Your task to perform on an android device: Show me recent news Image 0: 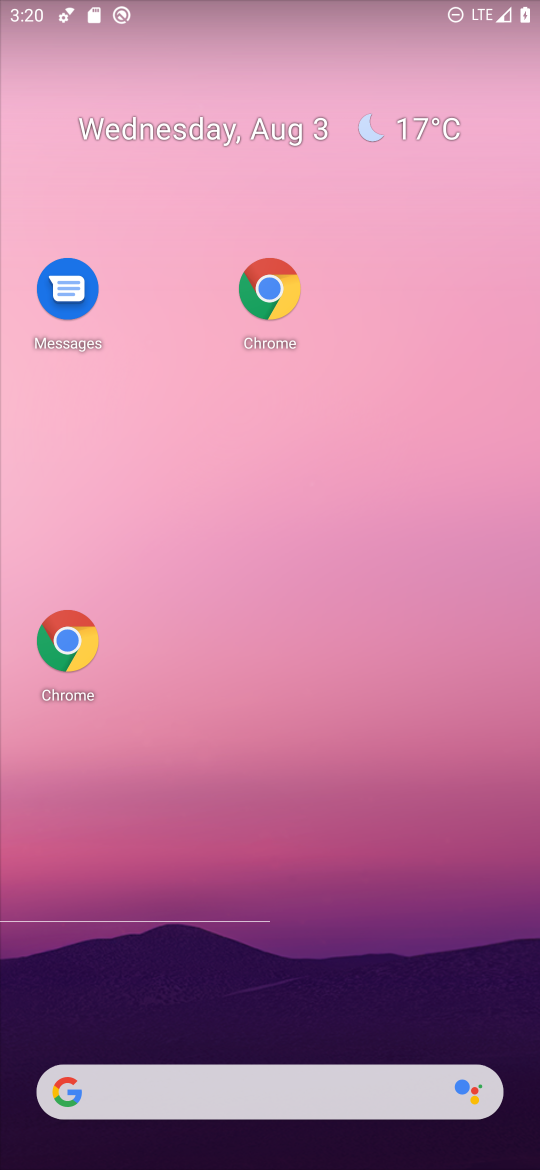
Step 0: click (340, 1079)
Your task to perform on an android device: Show me recent news Image 1: 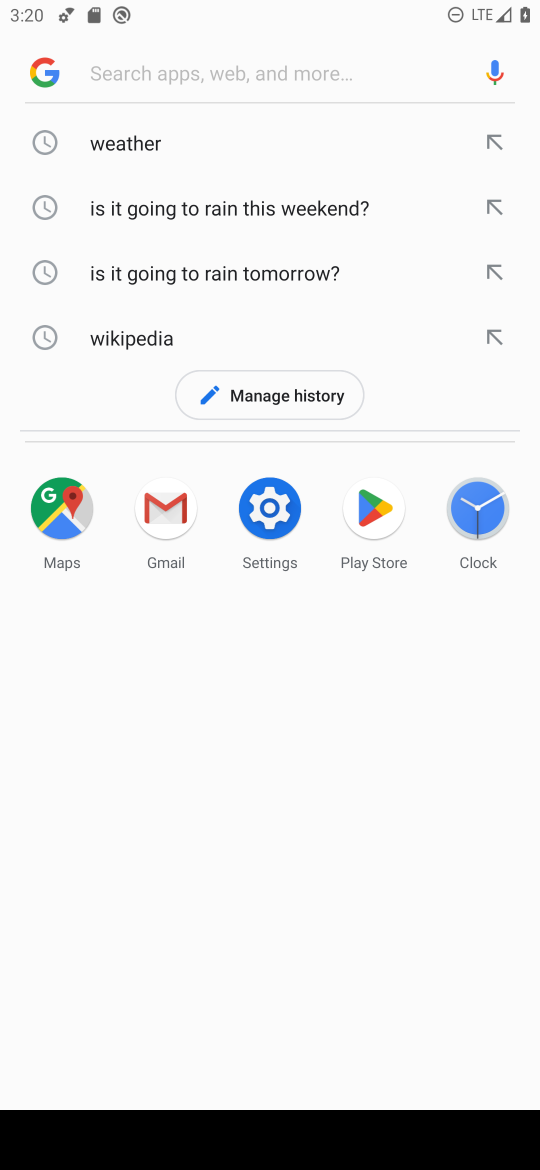
Step 1: type "news"
Your task to perform on an android device: Show me recent news Image 2: 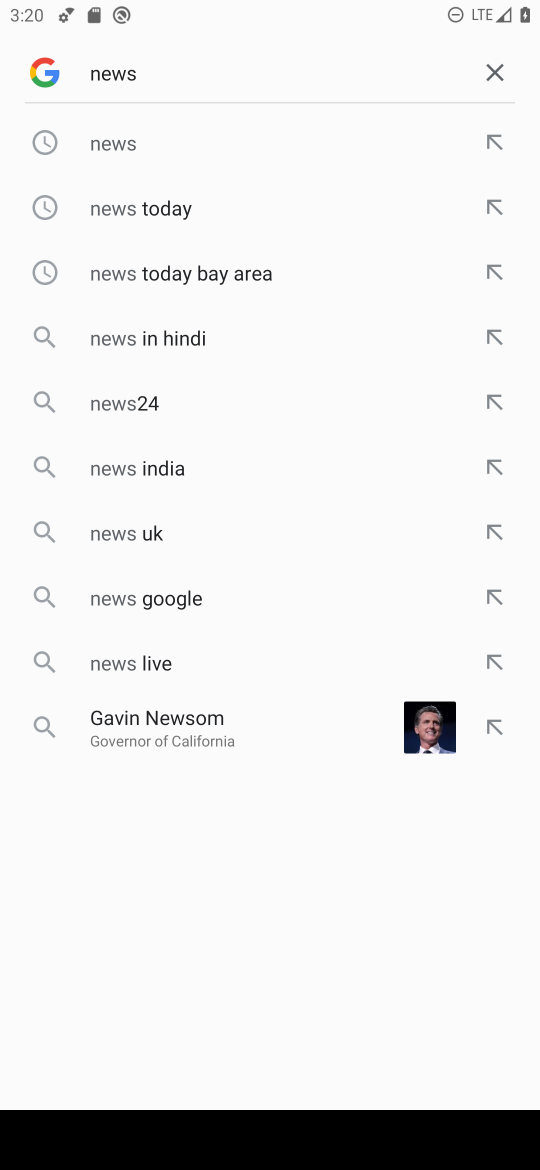
Step 2: click (228, 155)
Your task to perform on an android device: Show me recent news Image 3: 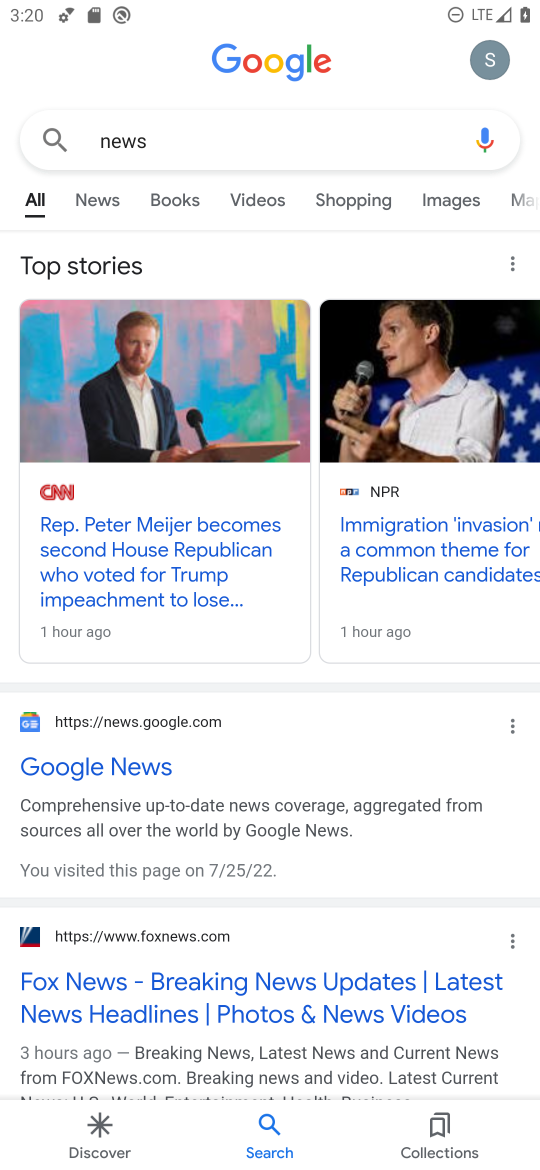
Step 3: task complete